Your task to perform on an android device: open app "Adobe Acrobat Reader" Image 0: 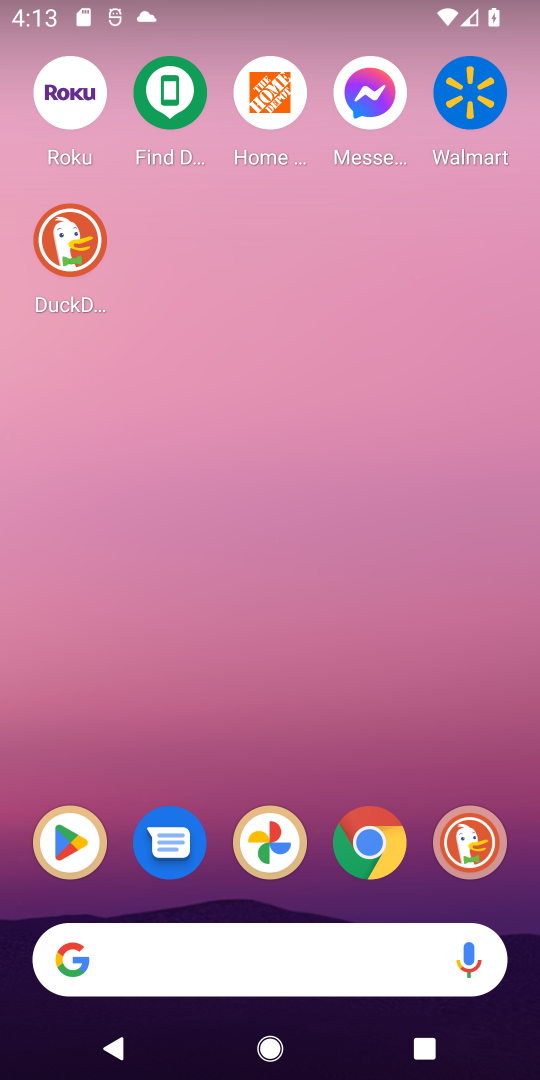
Step 0: click (79, 818)
Your task to perform on an android device: open app "Adobe Acrobat Reader" Image 1: 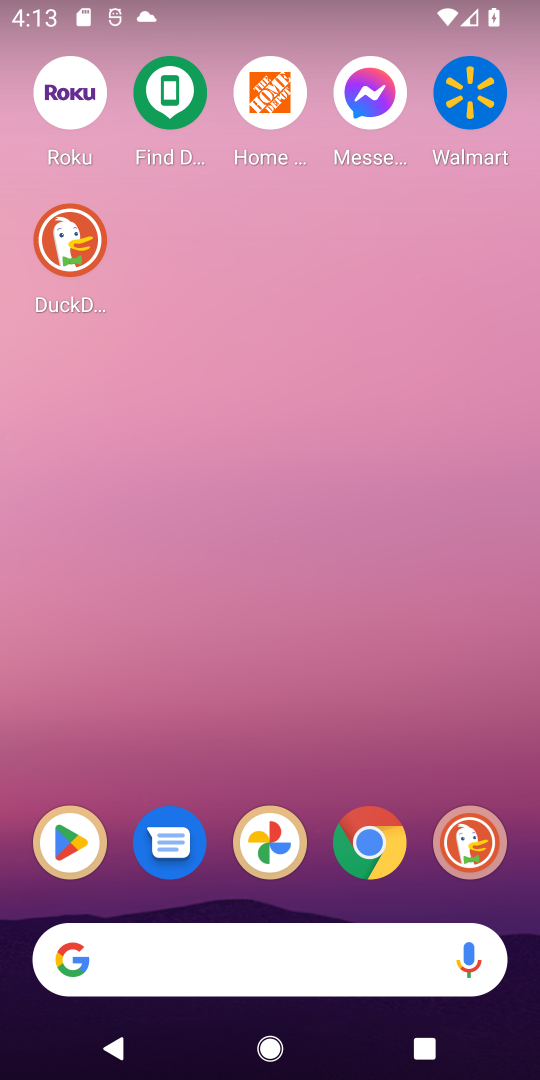
Step 1: drag from (272, 742) to (195, 27)
Your task to perform on an android device: open app "Adobe Acrobat Reader" Image 2: 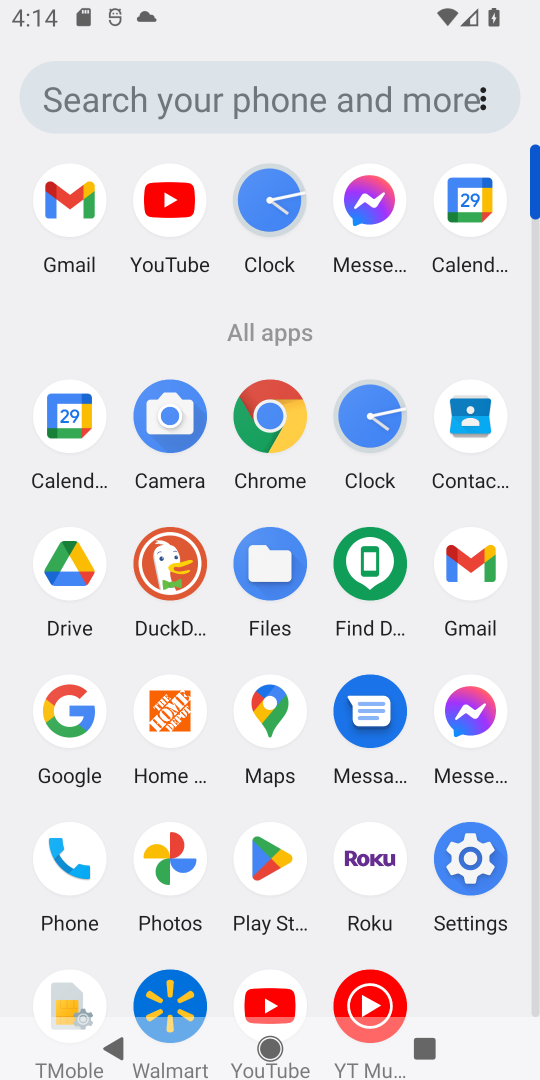
Step 2: click (250, 865)
Your task to perform on an android device: open app "Adobe Acrobat Reader" Image 3: 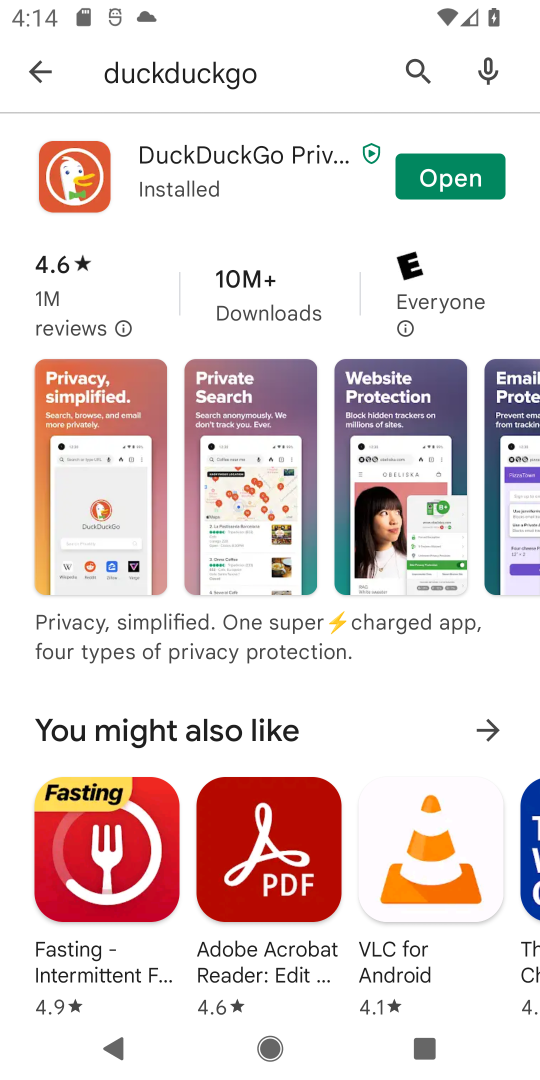
Step 3: click (406, 48)
Your task to perform on an android device: open app "Adobe Acrobat Reader" Image 4: 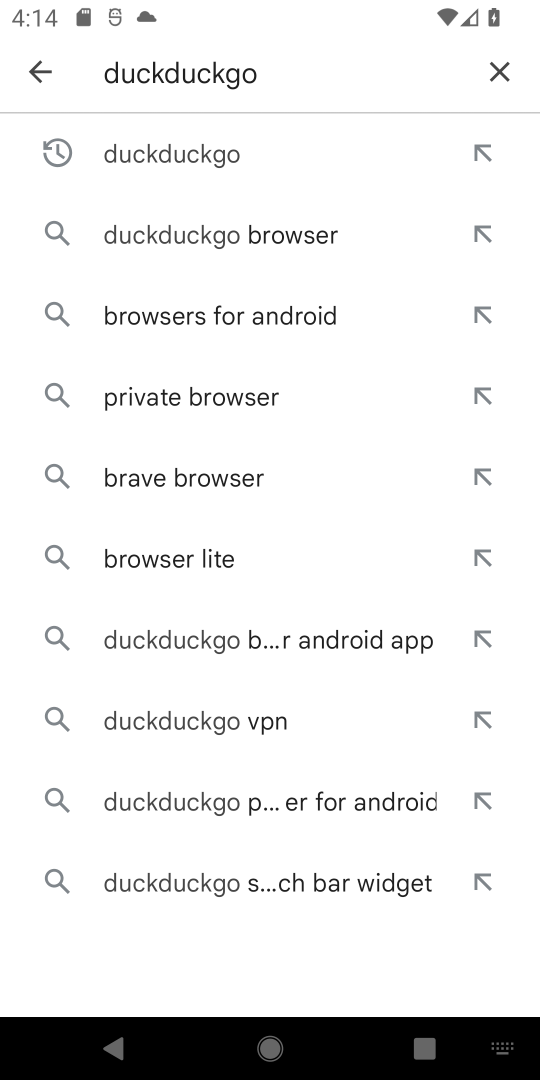
Step 4: click (493, 64)
Your task to perform on an android device: open app "Adobe Acrobat Reader" Image 5: 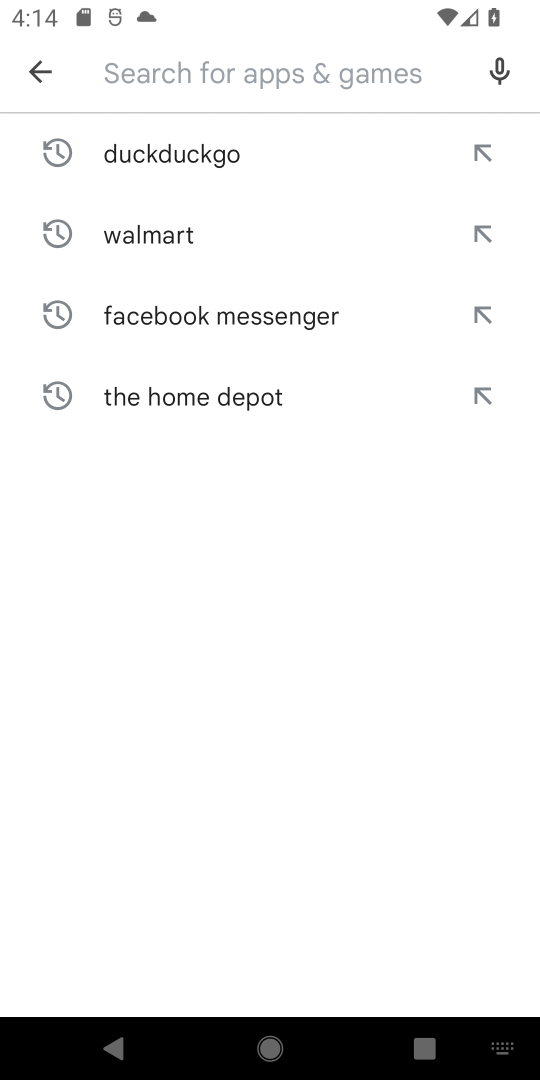
Step 5: click (209, 90)
Your task to perform on an android device: open app "Adobe Acrobat Reader" Image 6: 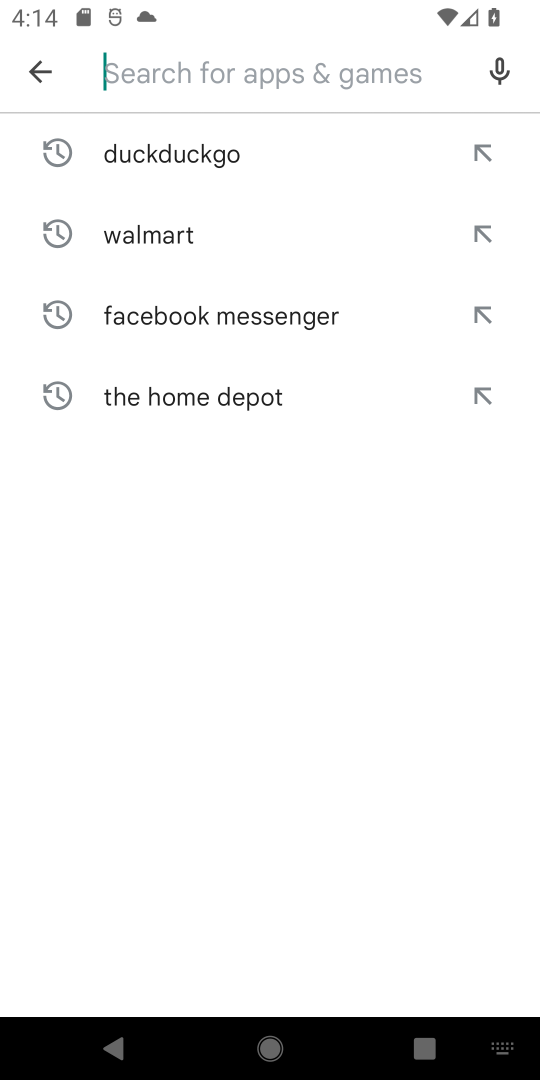
Step 6: type "adobe"
Your task to perform on an android device: open app "Adobe Acrobat Reader" Image 7: 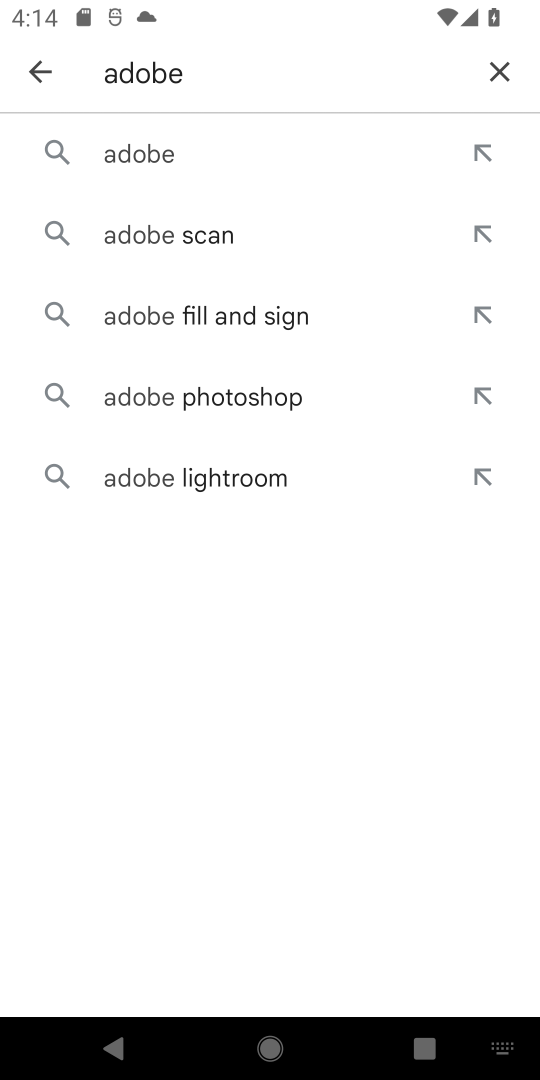
Step 7: type " acrobat reader"
Your task to perform on an android device: open app "Adobe Acrobat Reader" Image 8: 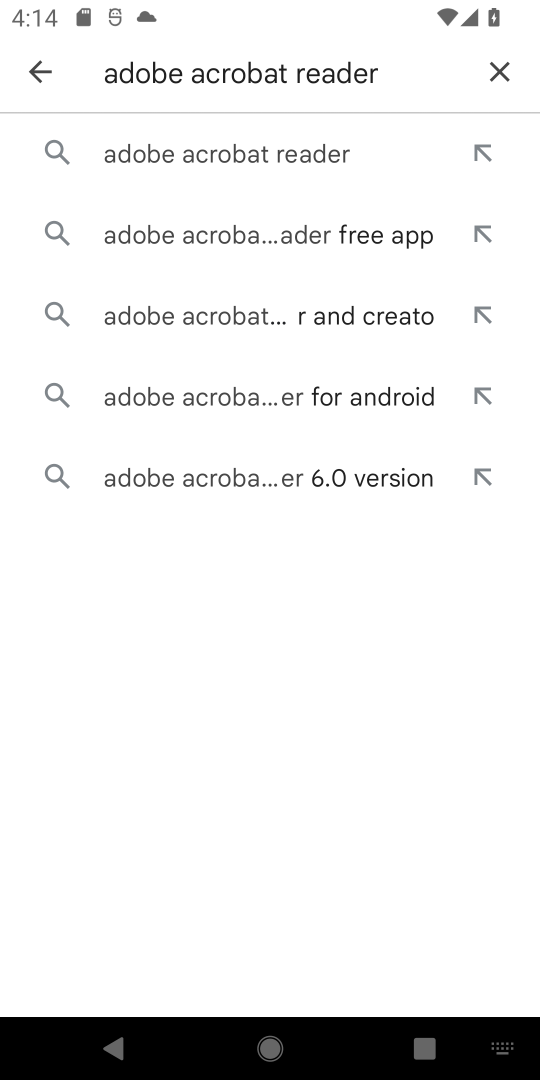
Step 8: click (252, 151)
Your task to perform on an android device: open app "Adobe Acrobat Reader" Image 9: 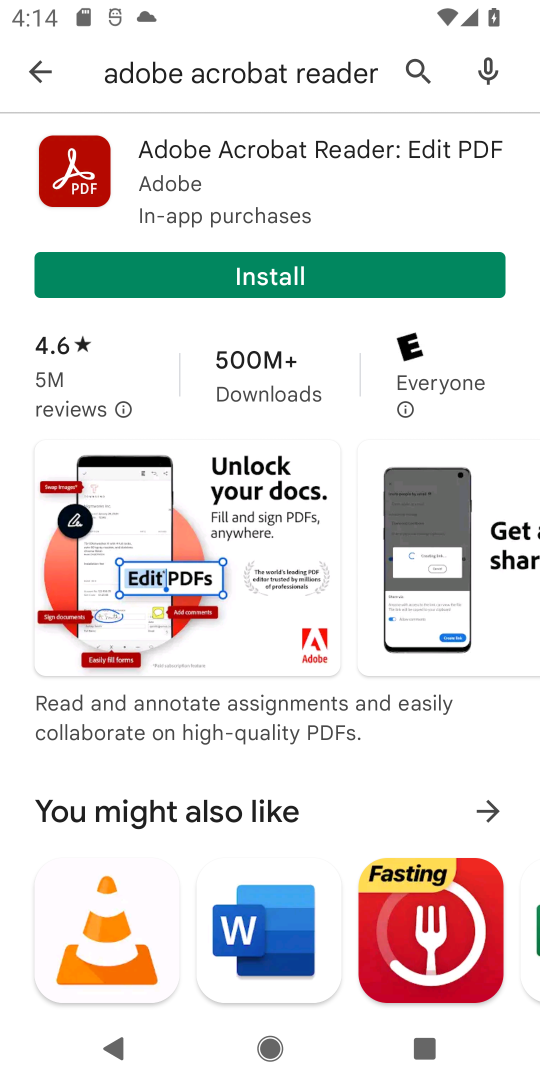
Step 9: click (237, 275)
Your task to perform on an android device: open app "Adobe Acrobat Reader" Image 10: 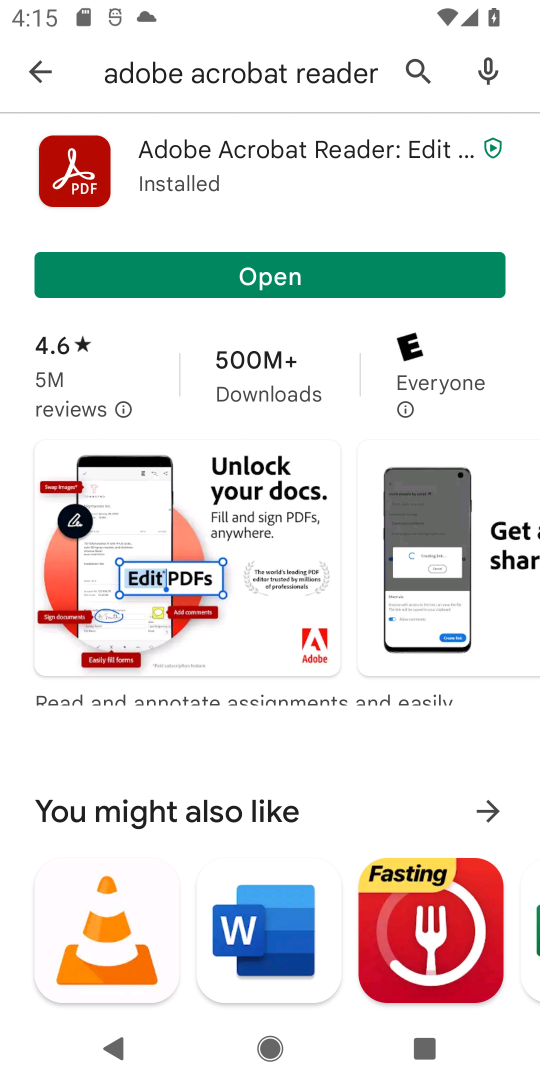
Step 10: click (203, 273)
Your task to perform on an android device: open app "Adobe Acrobat Reader" Image 11: 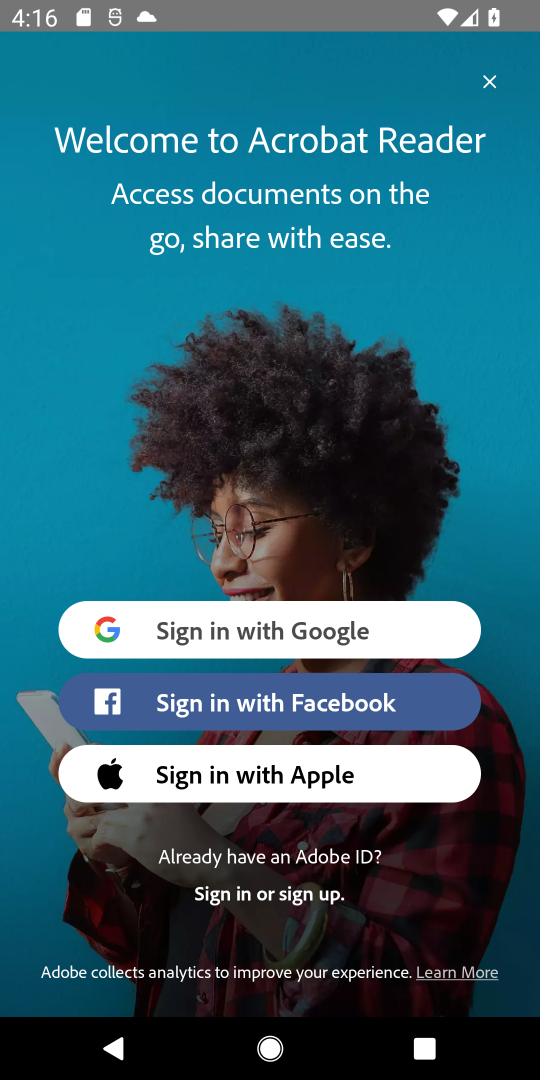
Step 11: task complete